Your task to perform on an android device: turn off picture-in-picture Image 0: 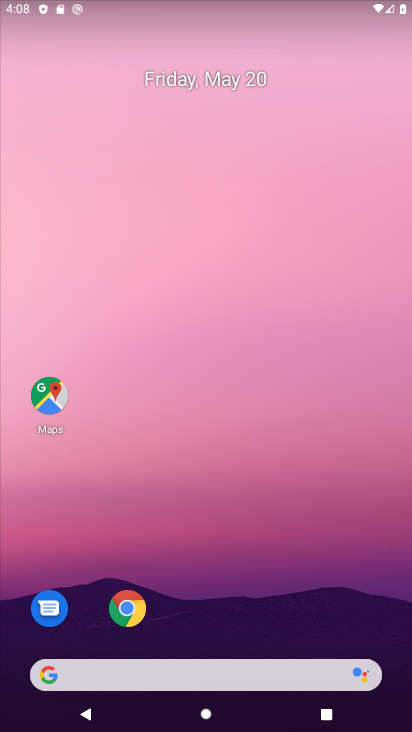
Step 0: drag from (199, 613) to (149, 81)
Your task to perform on an android device: turn off picture-in-picture Image 1: 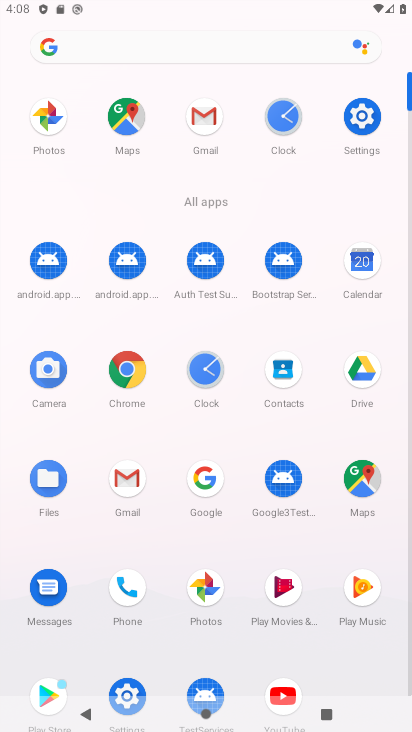
Step 1: click (119, 691)
Your task to perform on an android device: turn off picture-in-picture Image 2: 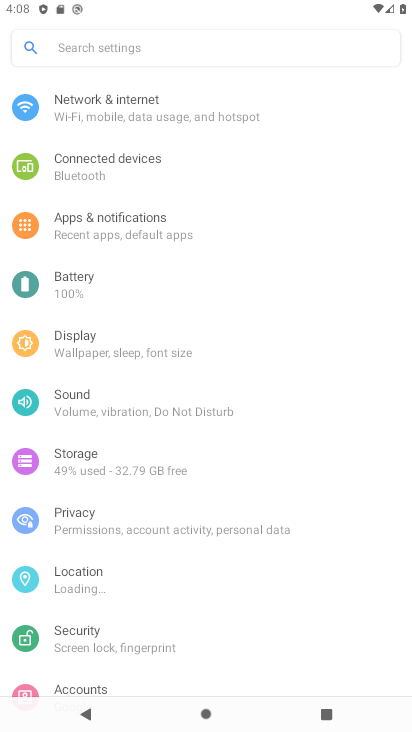
Step 2: drag from (162, 572) to (116, 248)
Your task to perform on an android device: turn off picture-in-picture Image 3: 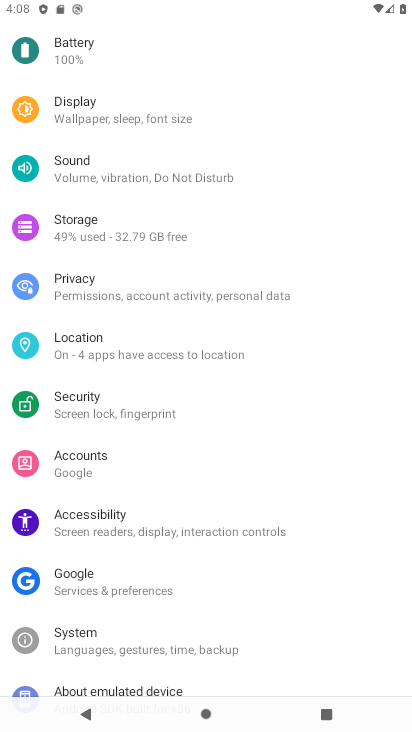
Step 3: drag from (135, 315) to (144, 626)
Your task to perform on an android device: turn off picture-in-picture Image 4: 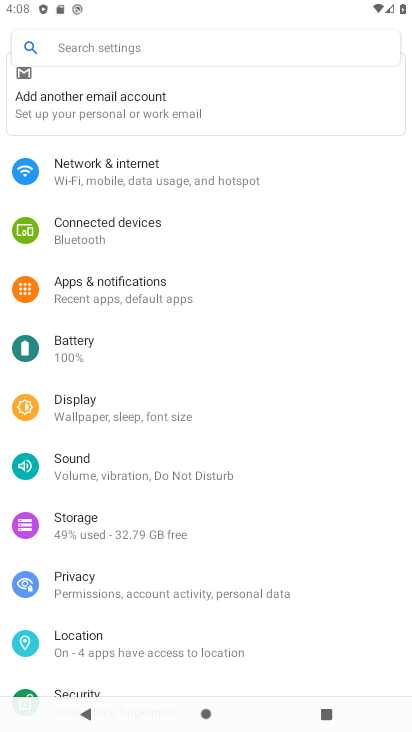
Step 4: click (113, 281)
Your task to perform on an android device: turn off picture-in-picture Image 5: 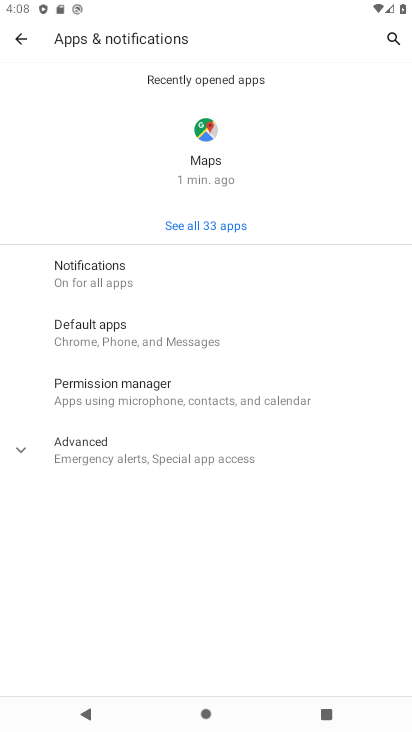
Step 5: click (92, 457)
Your task to perform on an android device: turn off picture-in-picture Image 6: 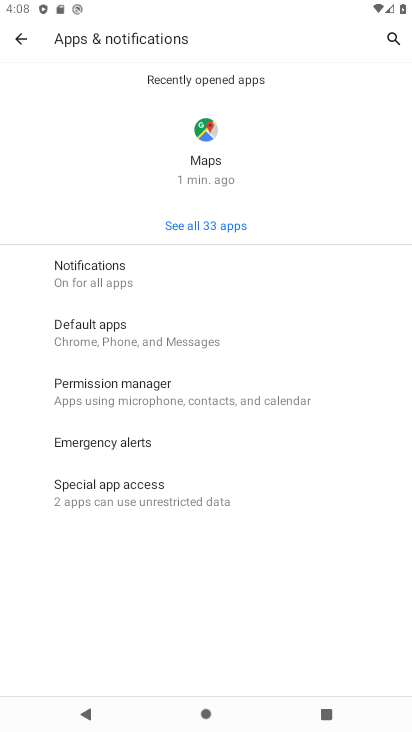
Step 6: click (97, 490)
Your task to perform on an android device: turn off picture-in-picture Image 7: 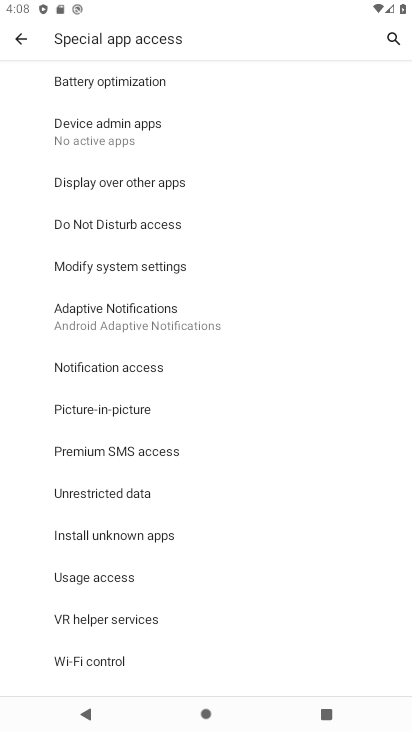
Step 7: click (114, 421)
Your task to perform on an android device: turn off picture-in-picture Image 8: 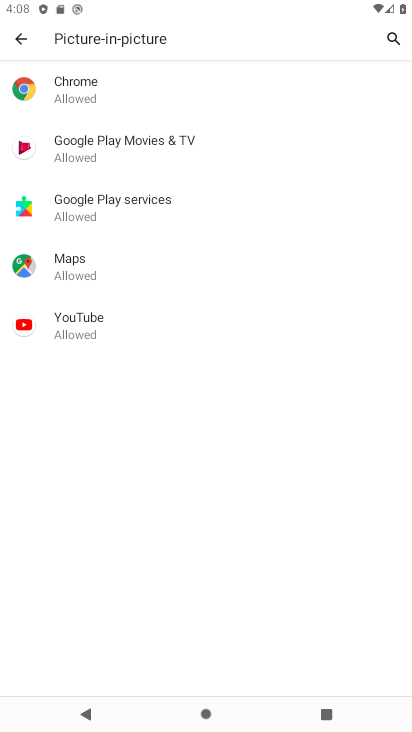
Step 8: task complete